Your task to perform on an android device: install app "Paramount+ | Peak Streaming" Image 0: 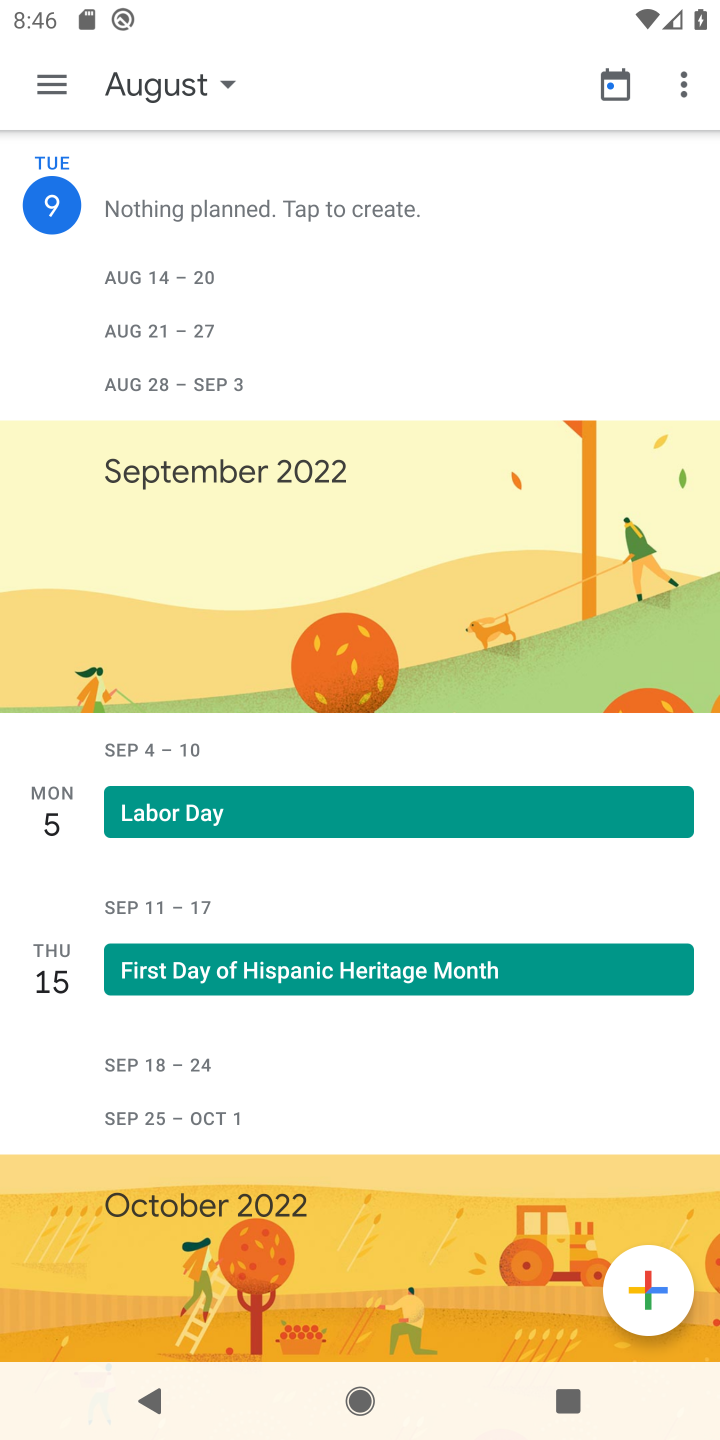
Step 0: press home button
Your task to perform on an android device: install app "Paramount+ | Peak Streaming" Image 1: 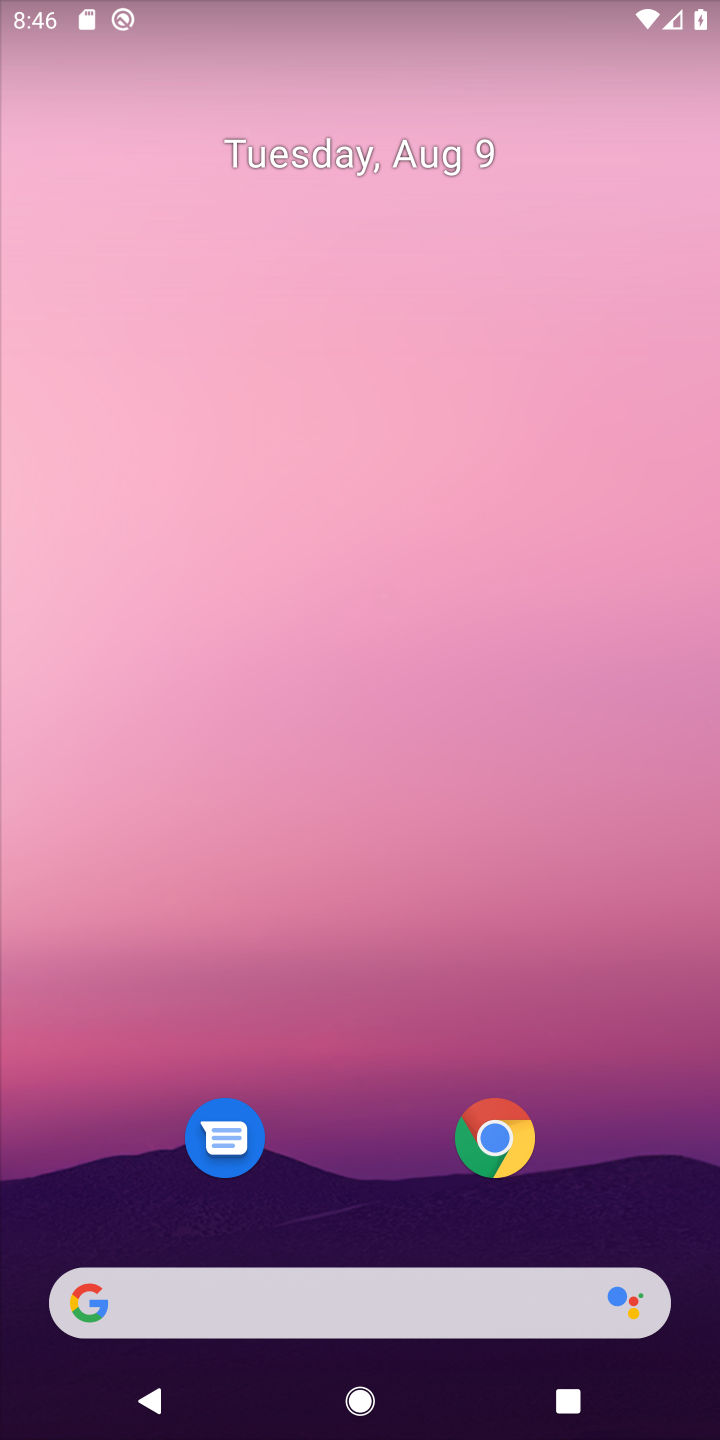
Step 1: drag from (325, 1173) to (426, 339)
Your task to perform on an android device: install app "Paramount+ | Peak Streaming" Image 2: 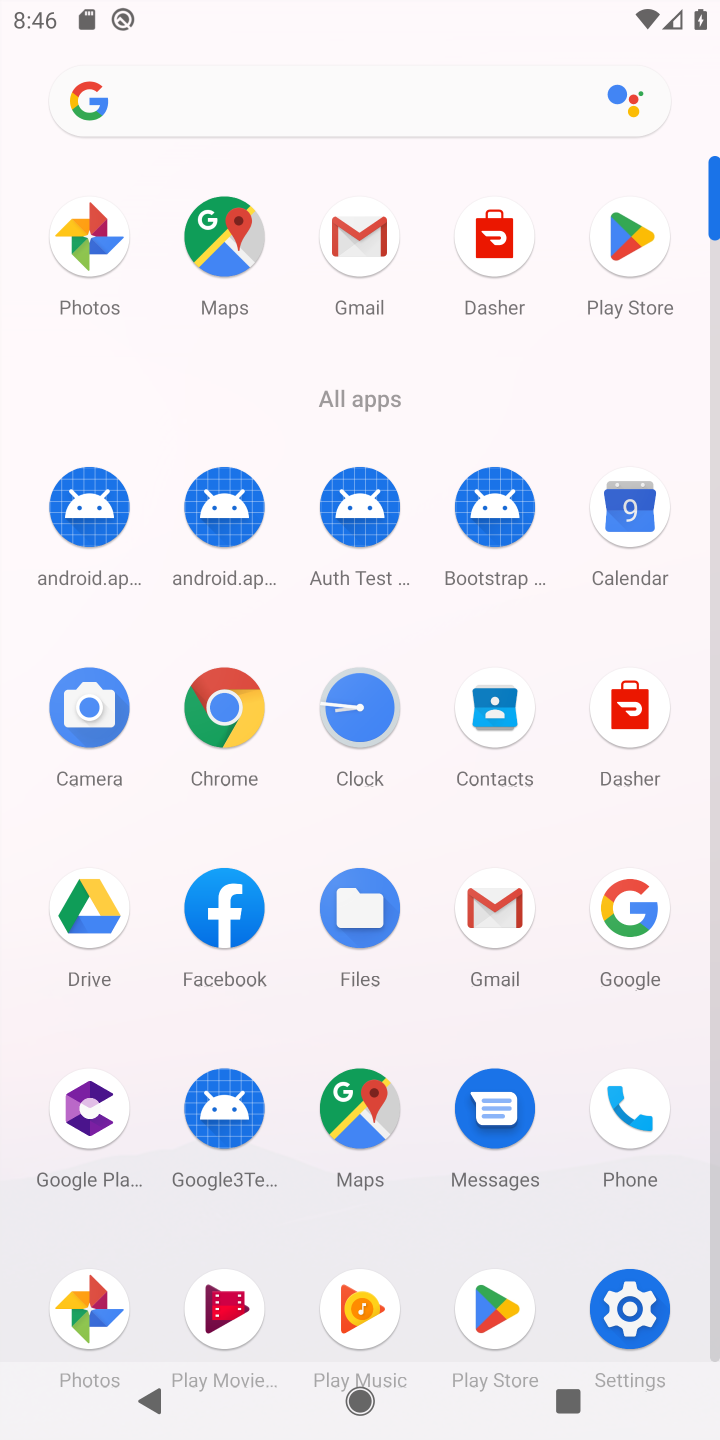
Step 2: click (626, 236)
Your task to perform on an android device: install app "Paramount+ | Peak Streaming" Image 3: 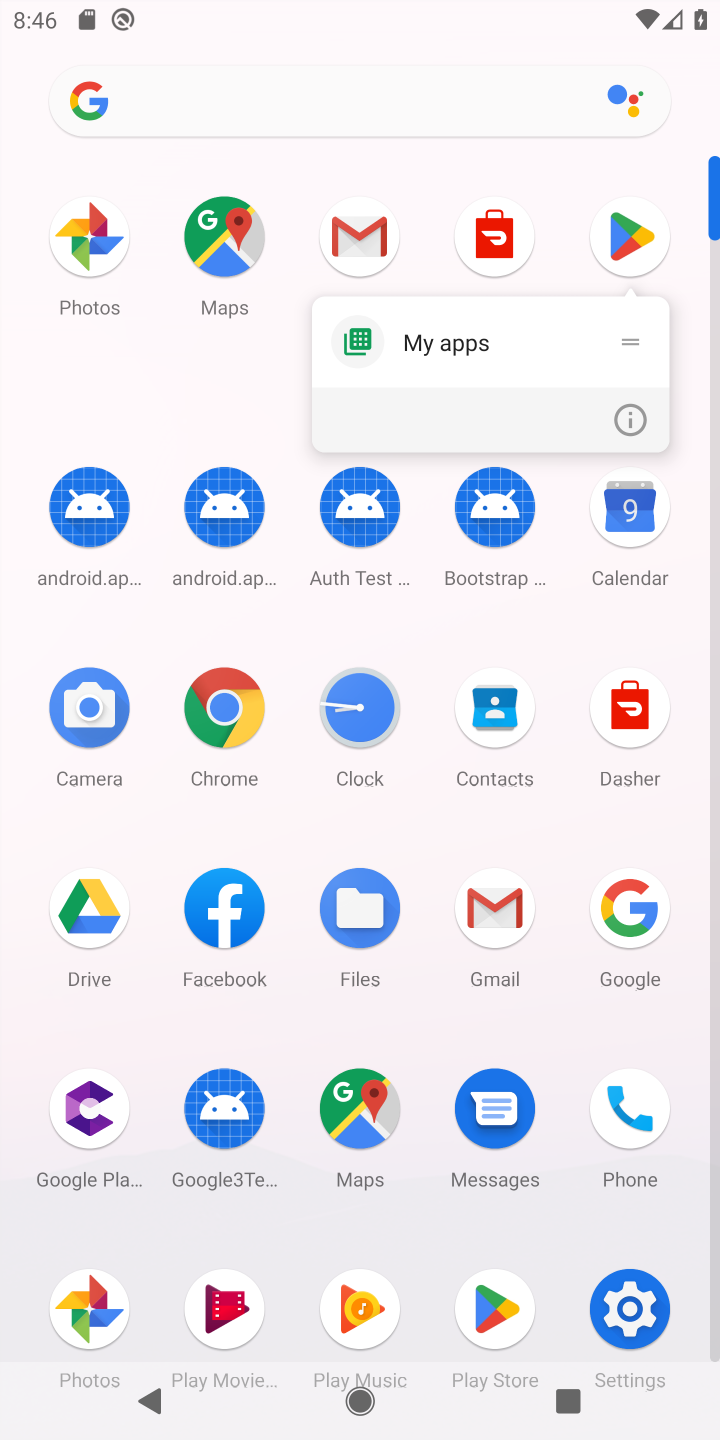
Step 3: click (617, 244)
Your task to perform on an android device: install app "Paramount+ | Peak Streaming" Image 4: 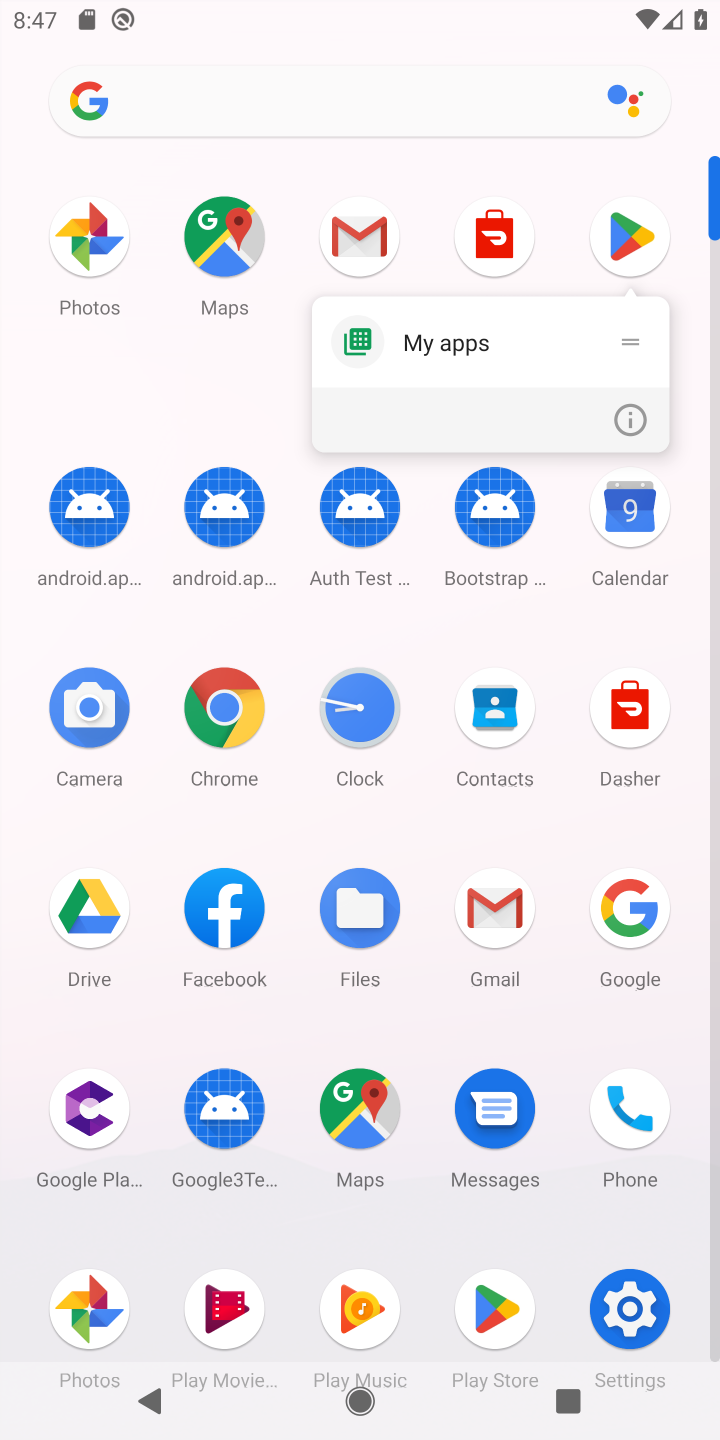
Step 4: click (605, 251)
Your task to perform on an android device: install app "Paramount+ | Peak Streaming" Image 5: 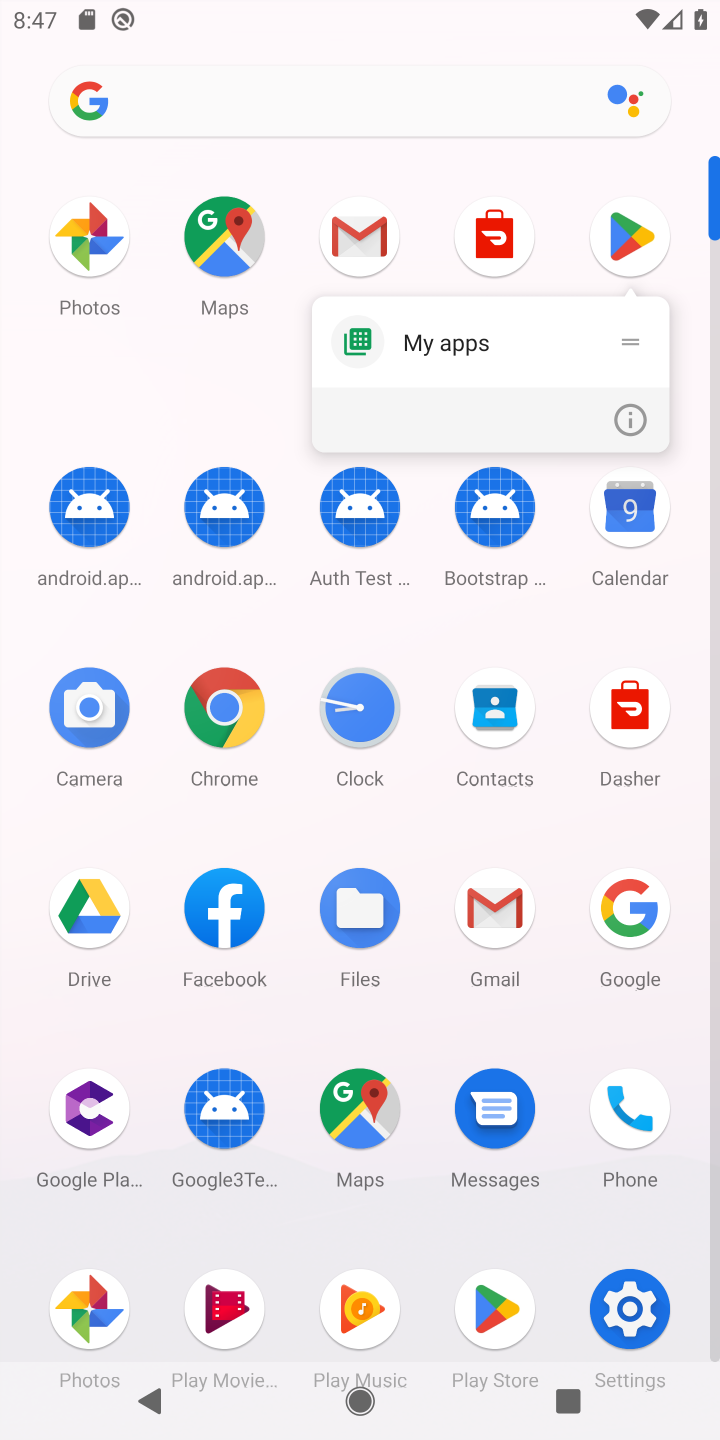
Step 5: click (645, 215)
Your task to perform on an android device: install app "Paramount+ | Peak Streaming" Image 6: 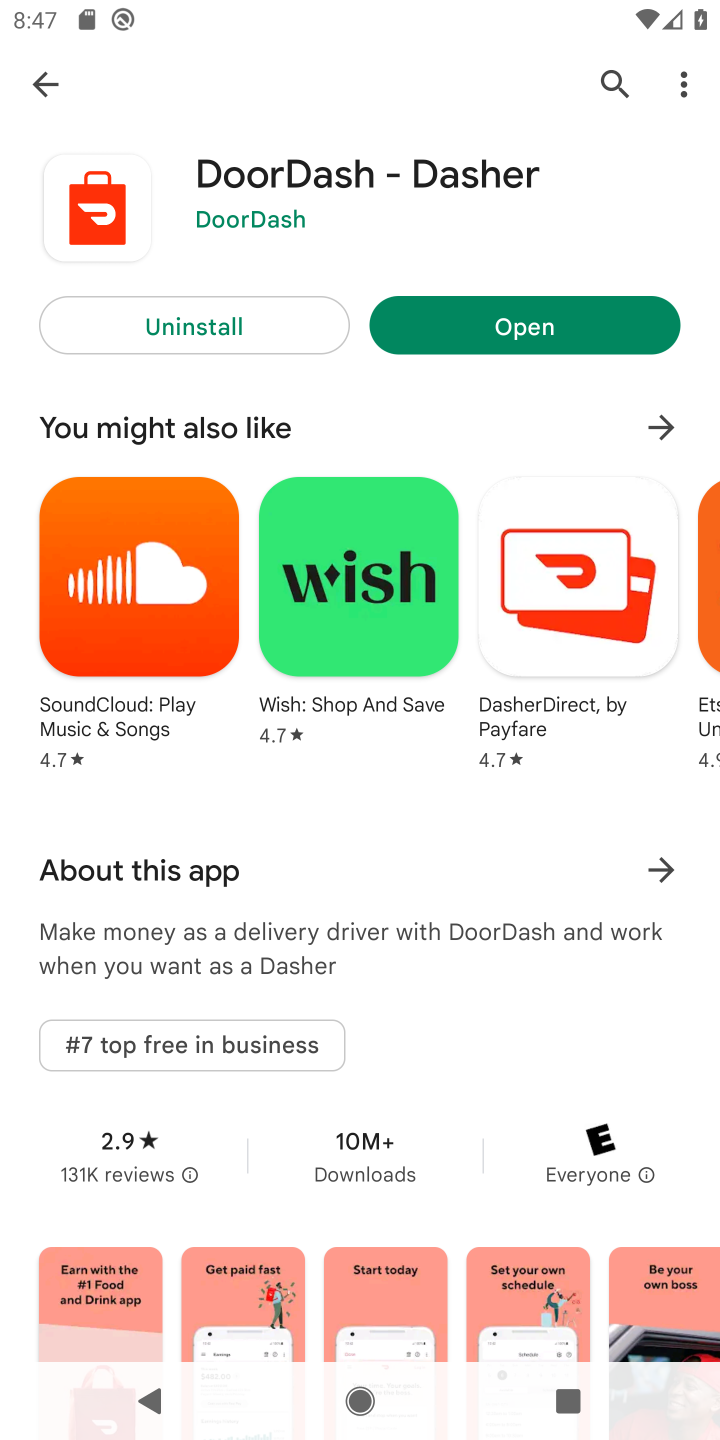
Step 6: click (619, 75)
Your task to perform on an android device: install app "Paramount+ | Peak Streaming" Image 7: 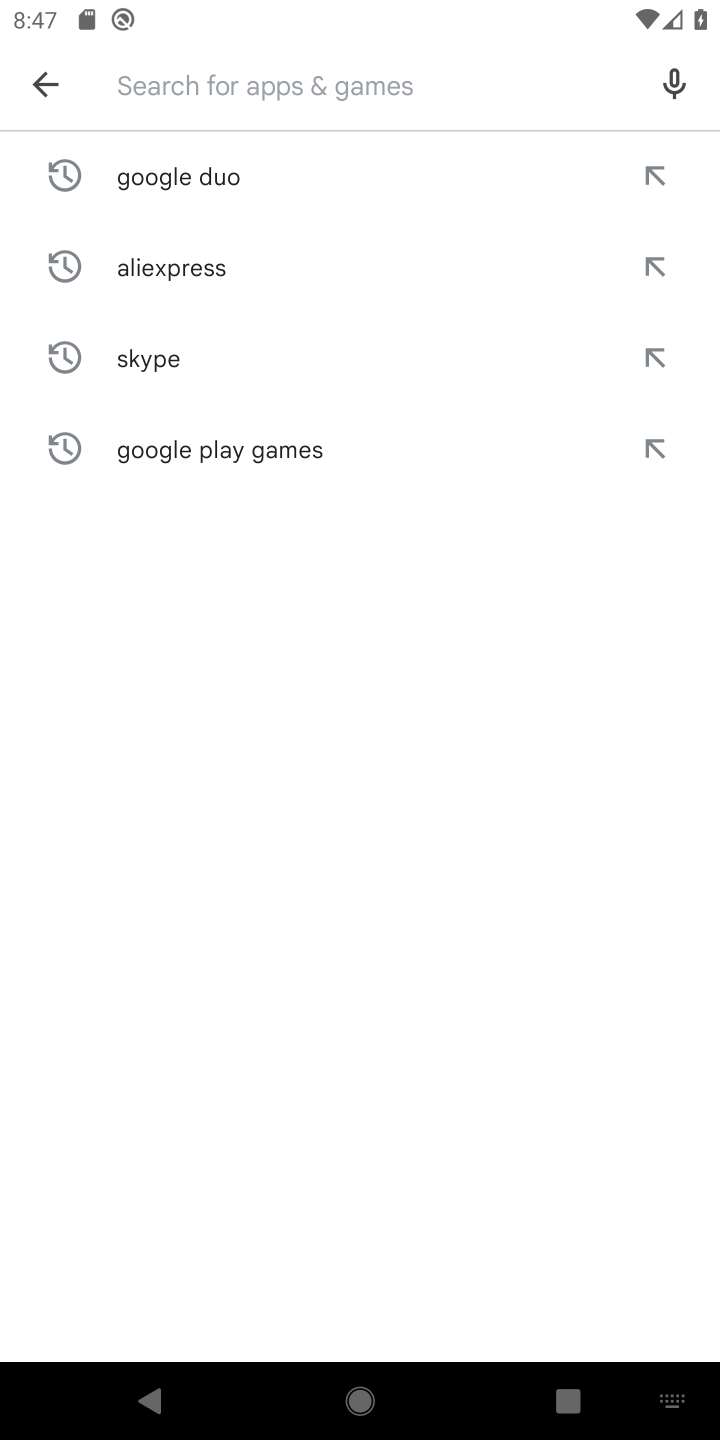
Step 7: type "Paramount+ | Peak Streaming"
Your task to perform on an android device: install app "Paramount+ | Peak Streaming" Image 8: 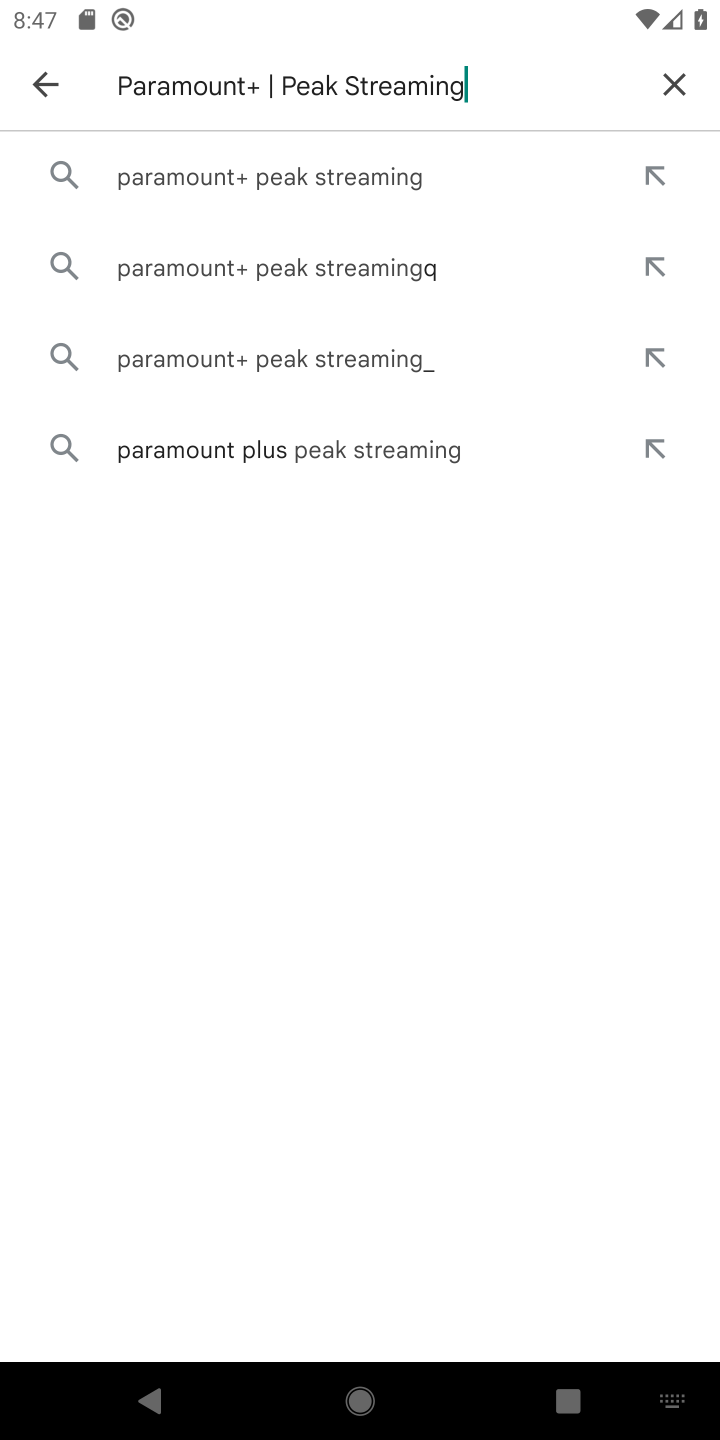
Step 8: click (333, 177)
Your task to perform on an android device: install app "Paramount+ | Peak Streaming" Image 9: 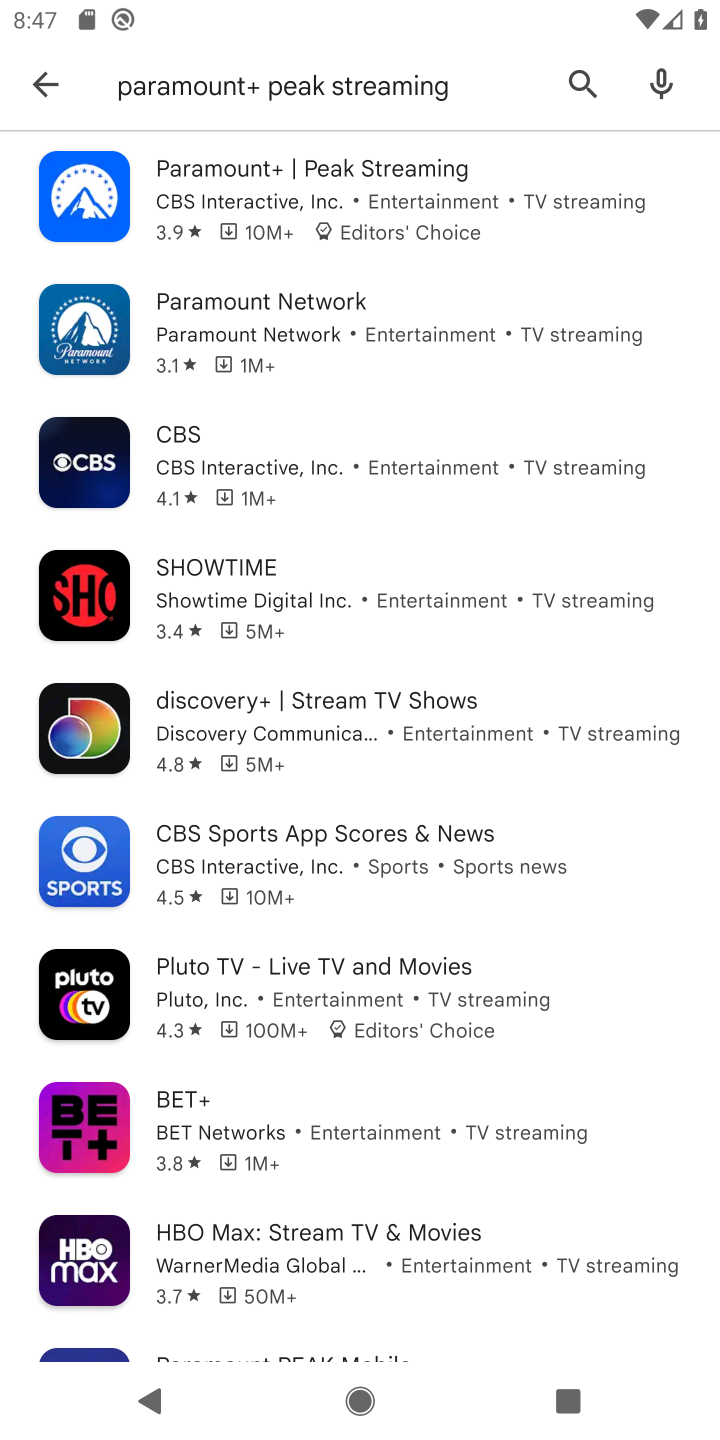
Step 9: click (300, 208)
Your task to perform on an android device: install app "Paramount+ | Peak Streaming" Image 10: 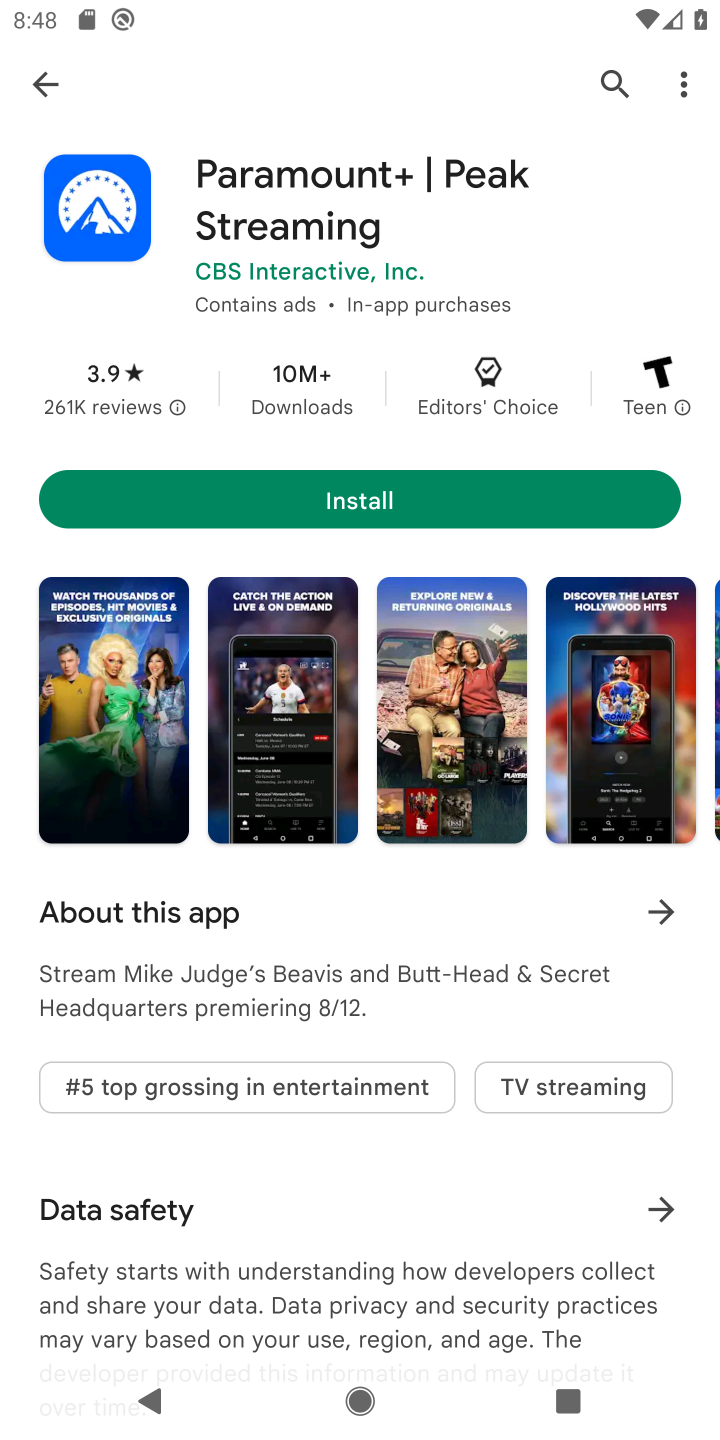
Step 10: click (410, 504)
Your task to perform on an android device: install app "Paramount+ | Peak Streaming" Image 11: 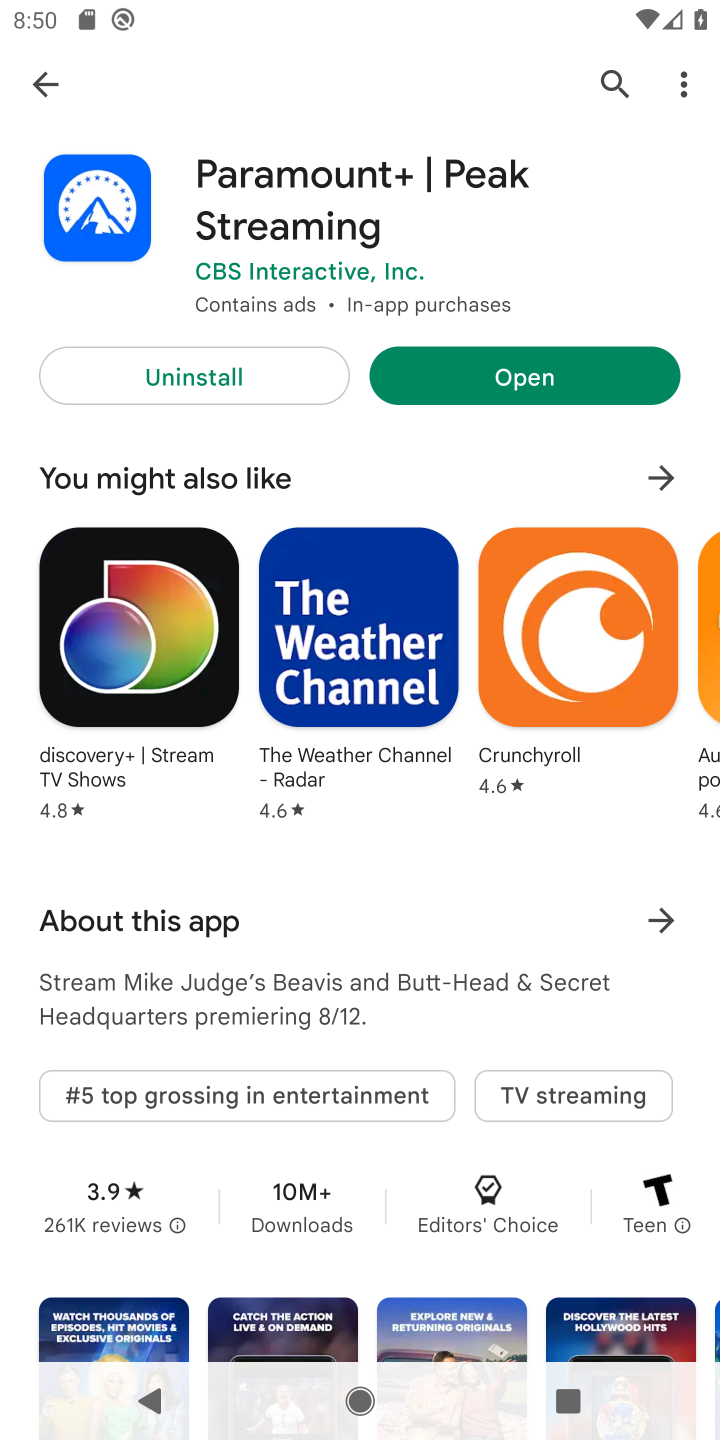
Step 11: task complete